Your task to perform on an android device: What's the weather going to be tomorrow? Image 0: 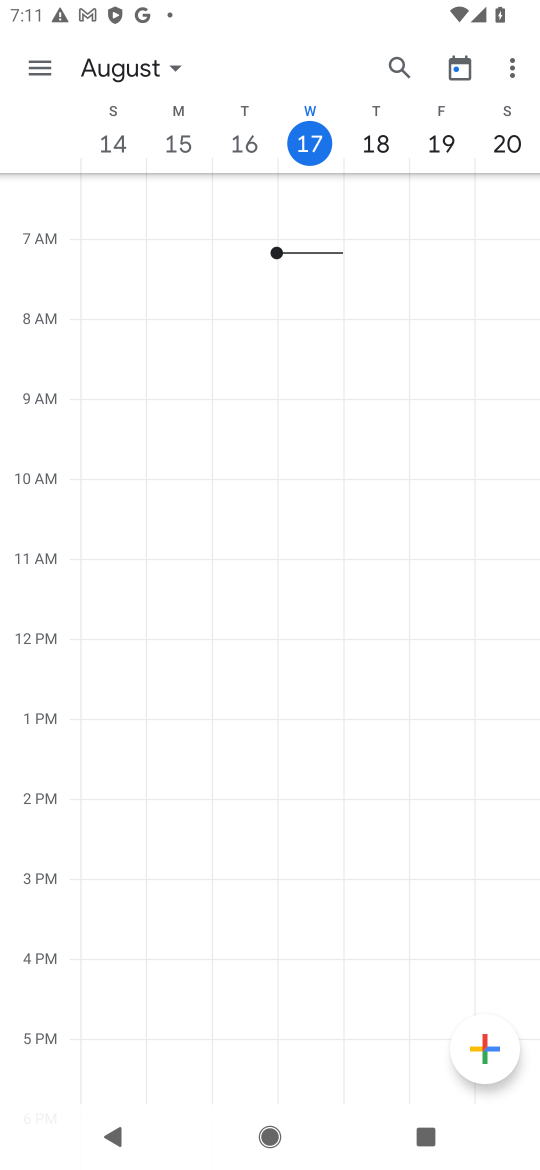
Step 0: press home button
Your task to perform on an android device: What's the weather going to be tomorrow? Image 1: 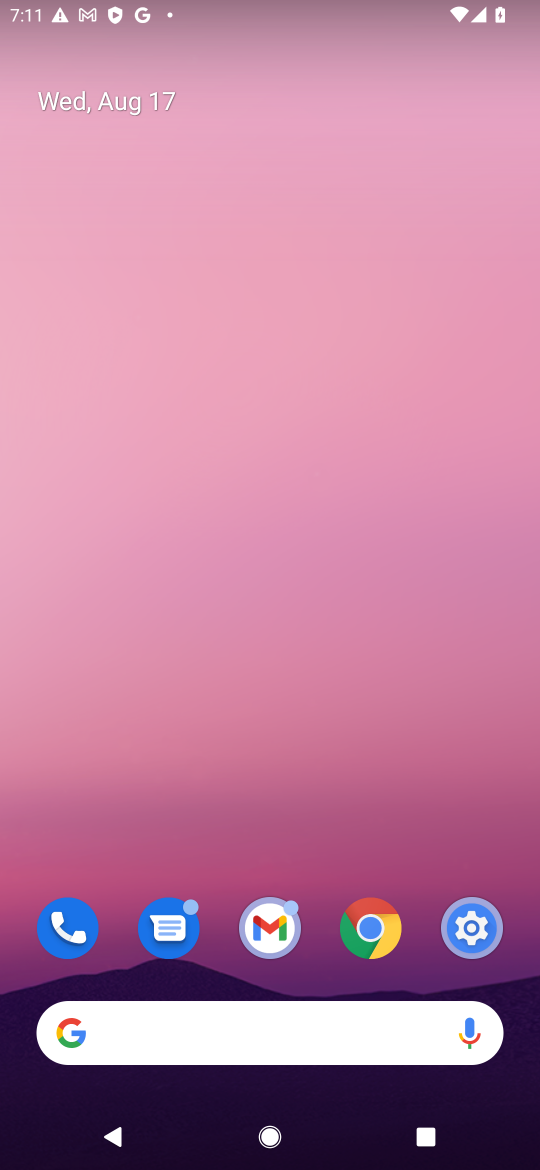
Step 1: click (383, 958)
Your task to perform on an android device: What's the weather going to be tomorrow? Image 2: 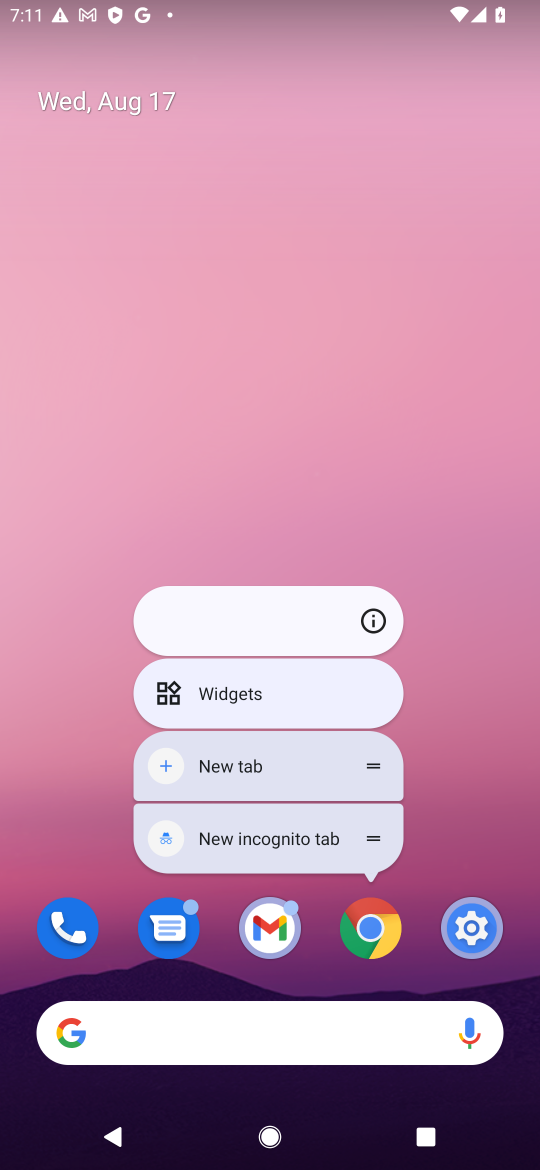
Step 2: click (383, 958)
Your task to perform on an android device: What's the weather going to be tomorrow? Image 3: 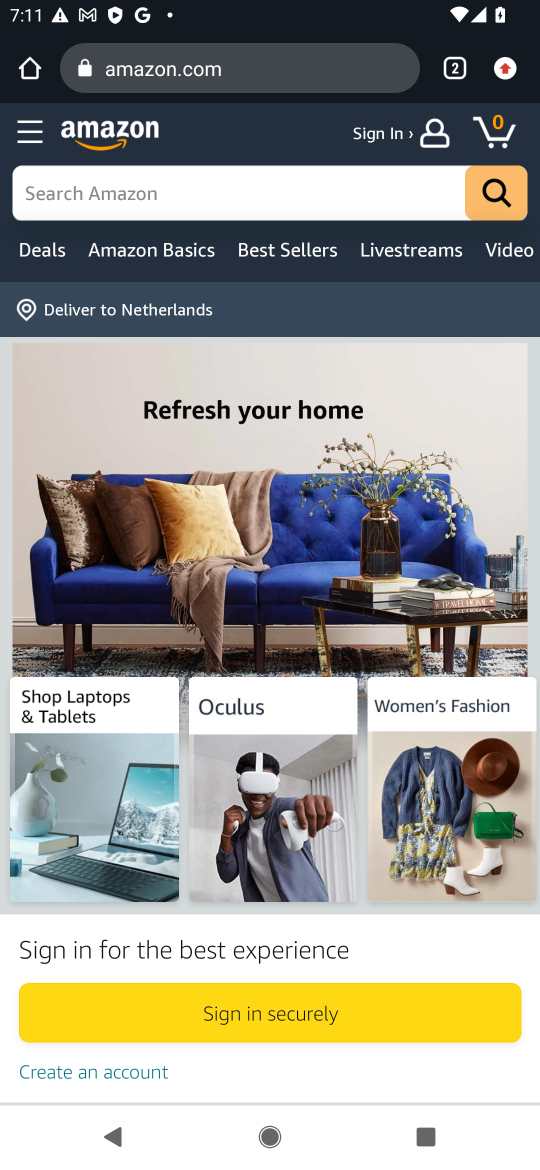
Step 3: click (262, 83)
Your task to perform on an android device: What's the weather going to be tomorrow? Image 4: 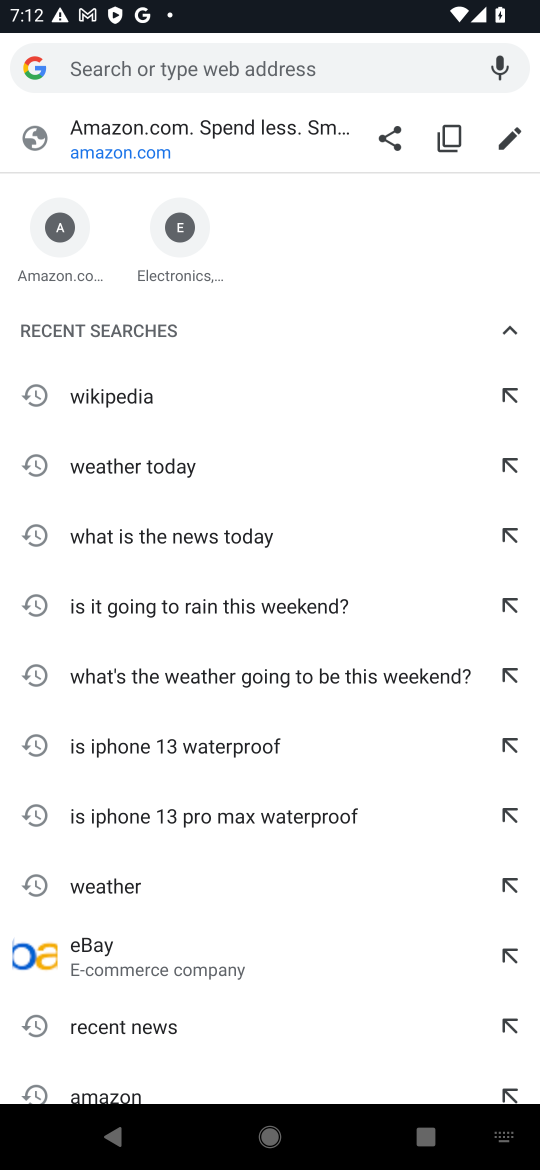
Step 4: type "weather tomorrow"
Your task to perform on an android device: What's the weather going to be tomorrow? Image 5: 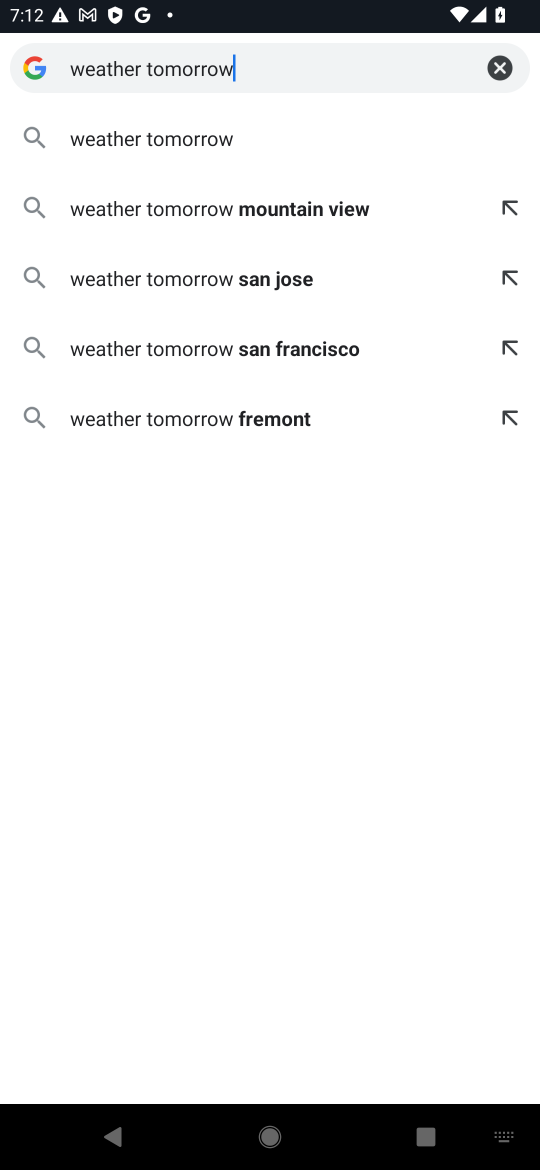
Step 5: click (214, 143)
Your task to perform on an android device: What's the weather going to be tomorrow? Image 6: 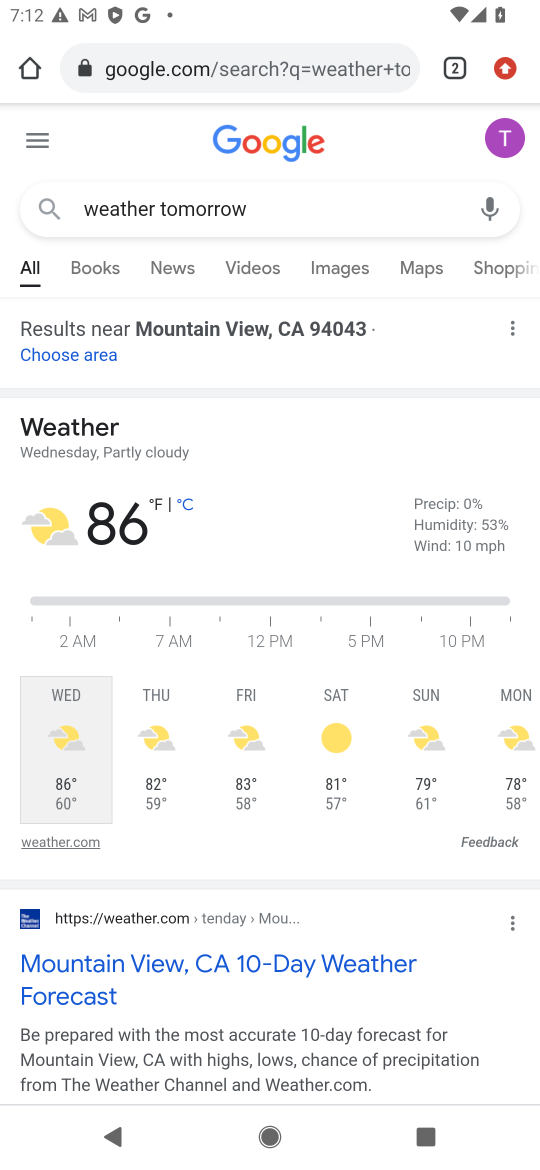
Step 6: task complete